Your task to perform on an android device: Check the news Image 0: 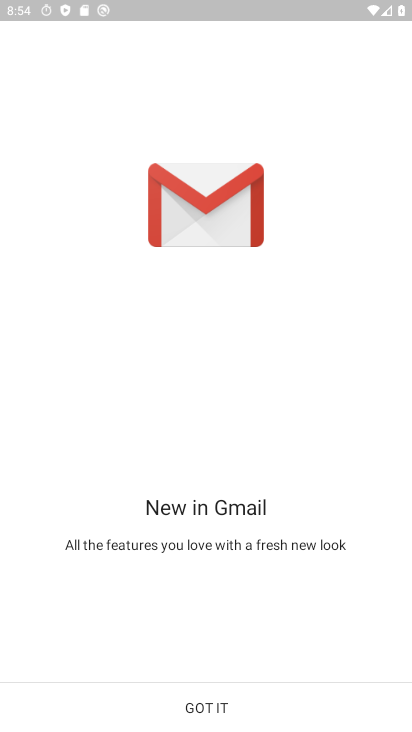
Step 0: press home button
Your task to perform on an android device: Check the news Image 1: 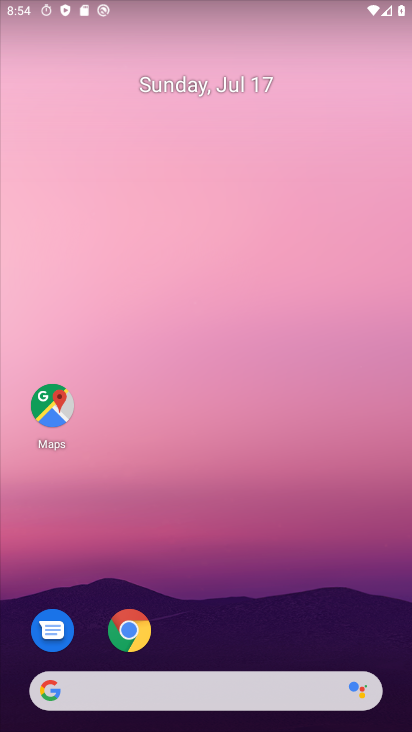
Step 1: click (102, 699)
Your task to perform on an android device: Check the news Image 2: 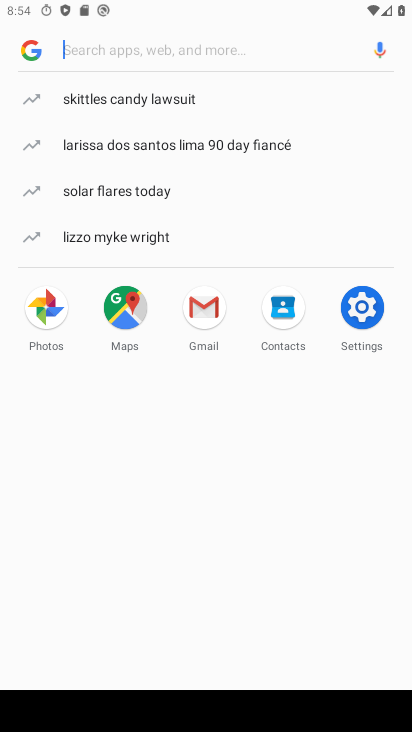
Step 2: type "news"
Your task to perform on an android device: Check the news Image 3: 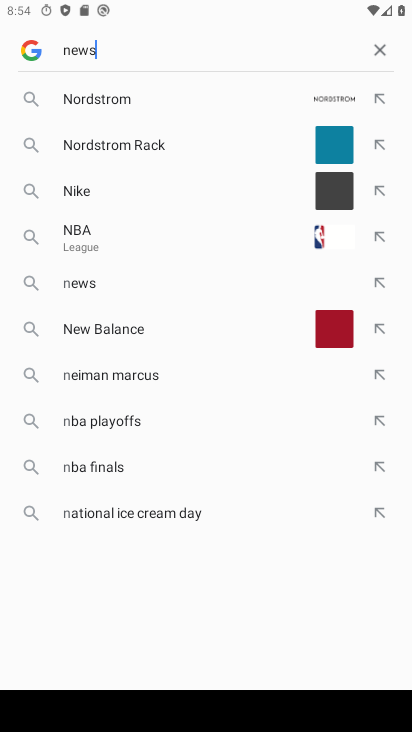
Step 3: type ""
Your task to perform on an android device: Check the news Image 4: 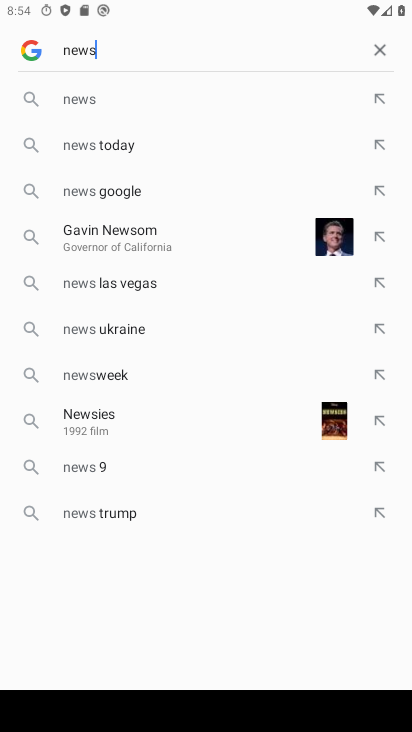
Step 4: click (93, 90)
Your task to perform on an android device: Check the news Image 5: 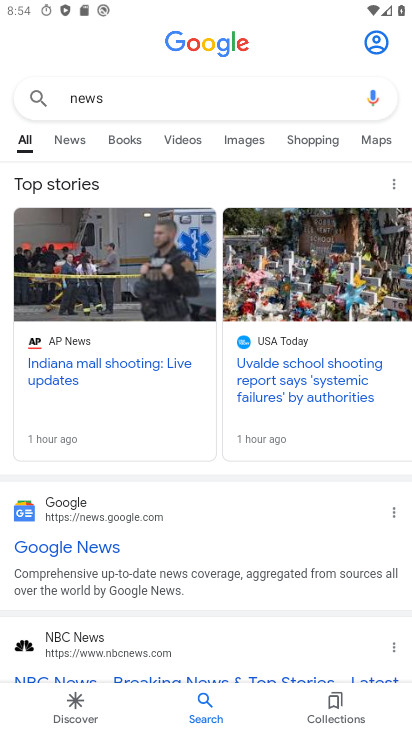
Step 5: task complete